Your task to perform on an android device: toggle location history Image 0: 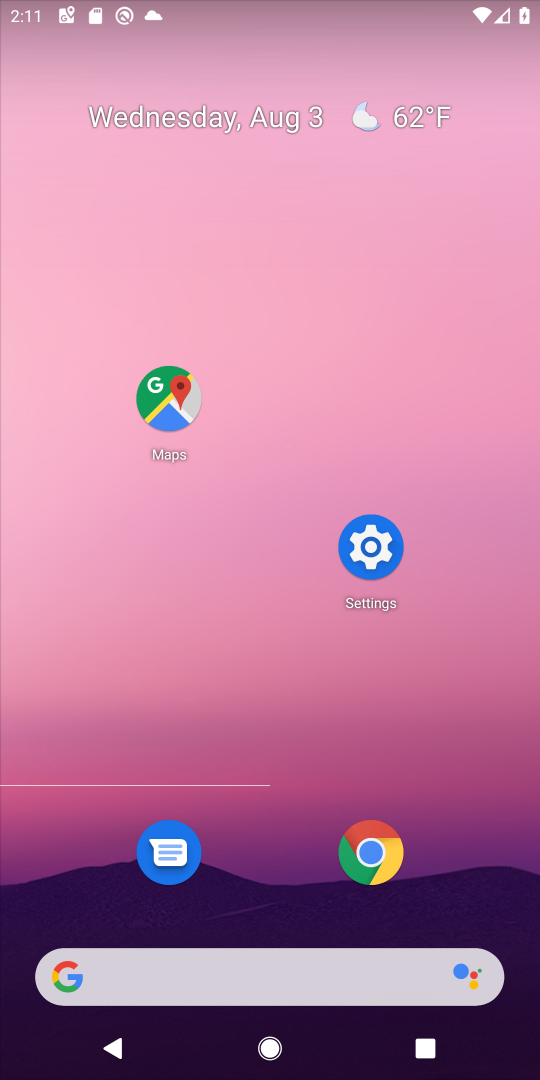
Step 0: press home button
Your task to perform on an android device: toggle location history Image 1: 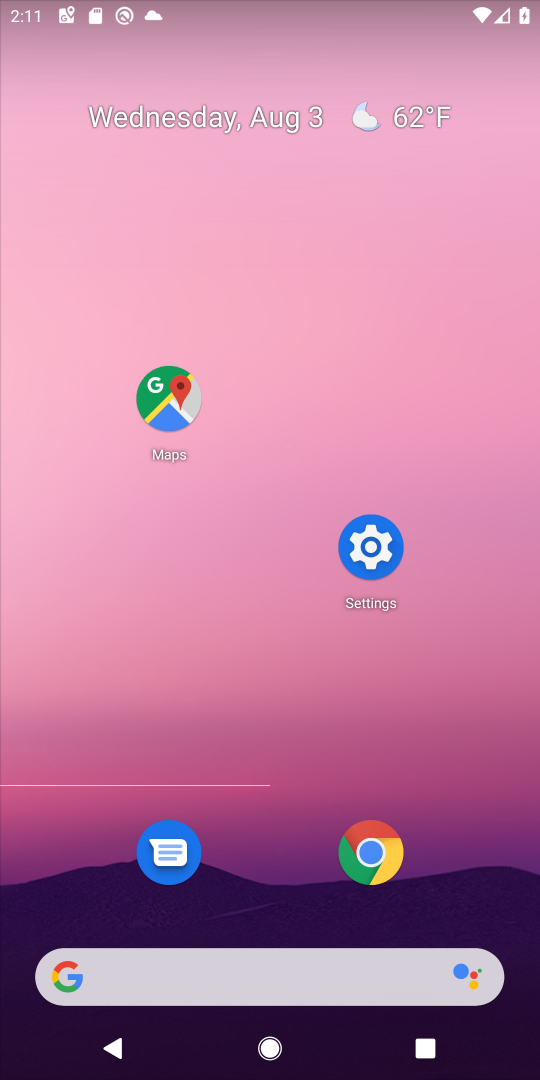
Step 1: click (162, 413)
Your task to perform on an android device: toggle location history Image 2: 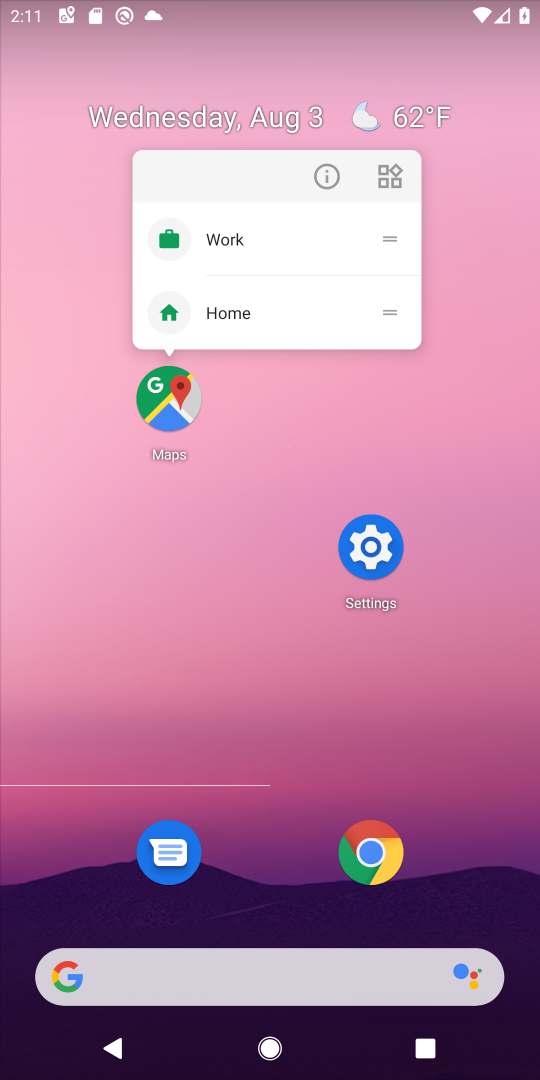
Step 2: click (168, 408)
Your task to perform on an android device: toggle location history Image 3: 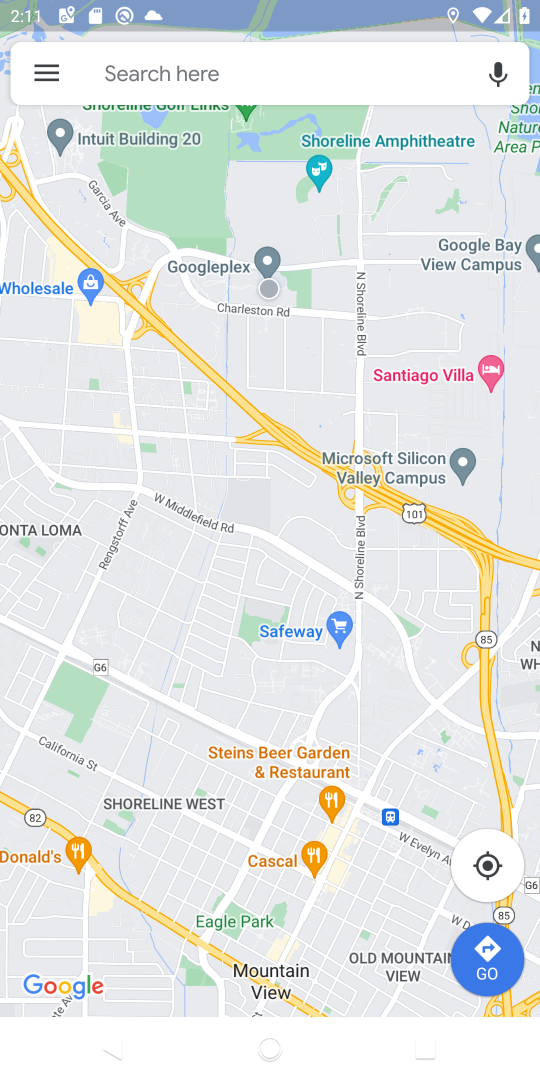
Step 3: click (38, 70)
Your task to perform on an android device: toggle location history Image 4: 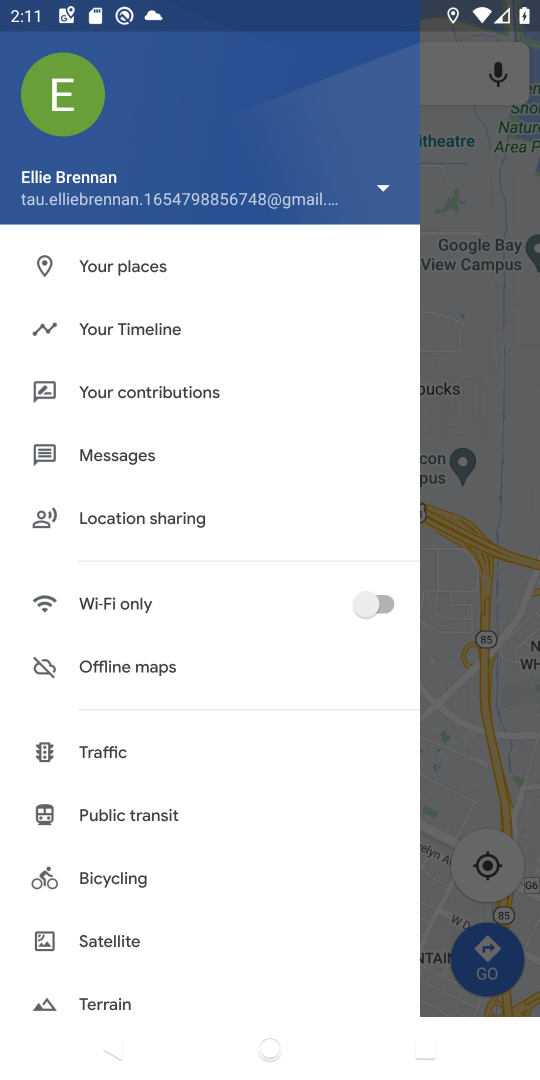
Step 4: click (147, 325)
Your task to perform on an android device: toggle location history Image 5: 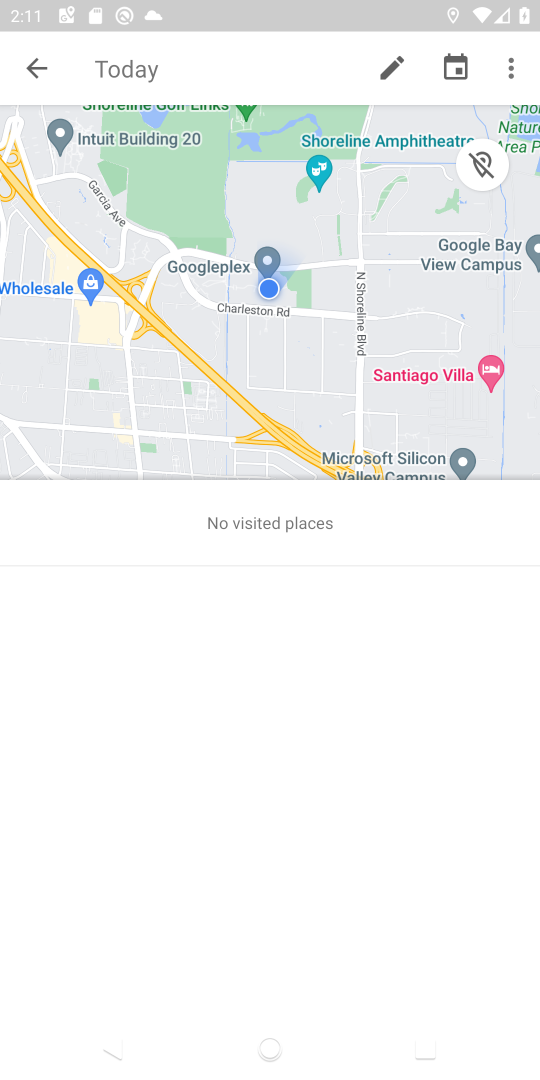
Step 5: click (511, 62)
Your task to perform on an android device: toggle location history Image 6: 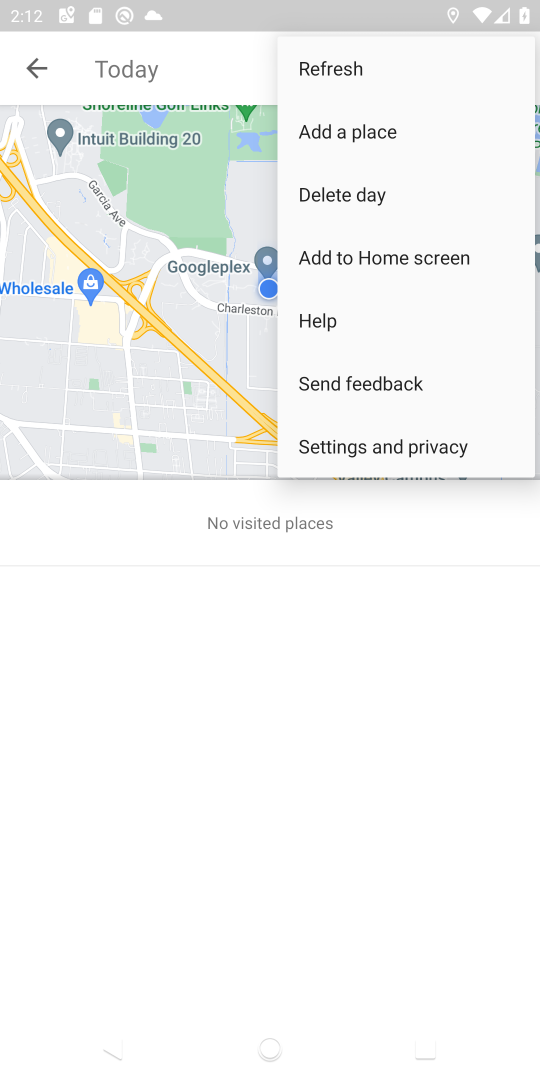
Step 6: click (388, 449)
Your task to perform on an android device: toggle location history Image 7: 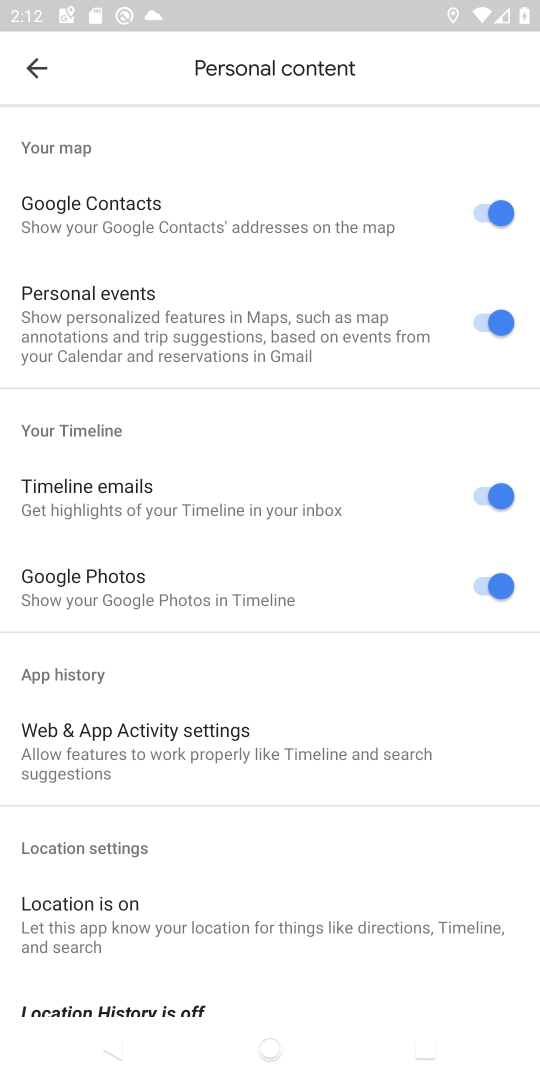
Step 7: drag from (267, 845) to (425, 343)
Your task to perform on an android device: toggle location history Image 8: 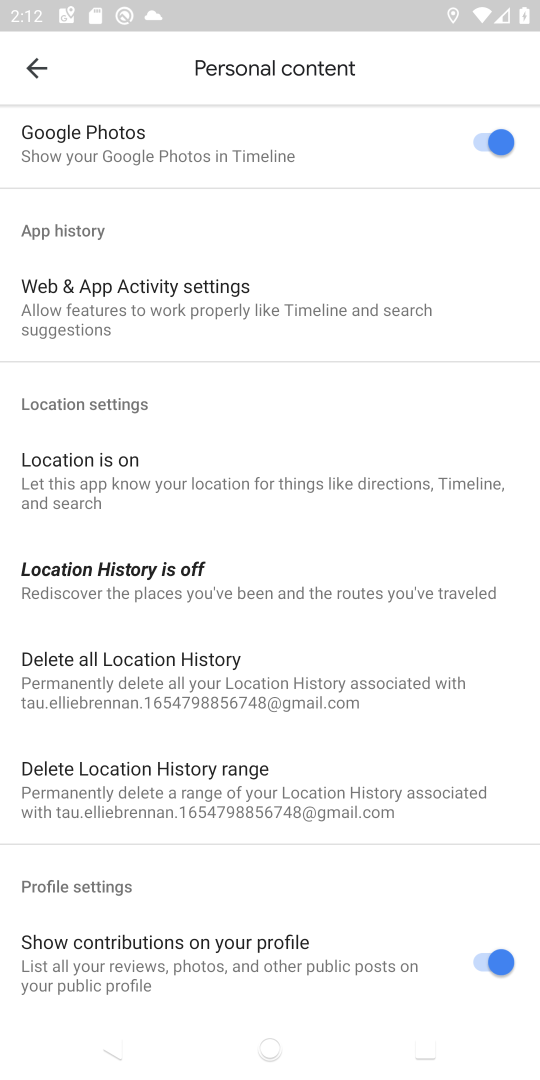
Step 8: click (183, 571)
Your task to perform on an android device: toggle location history Image 9: 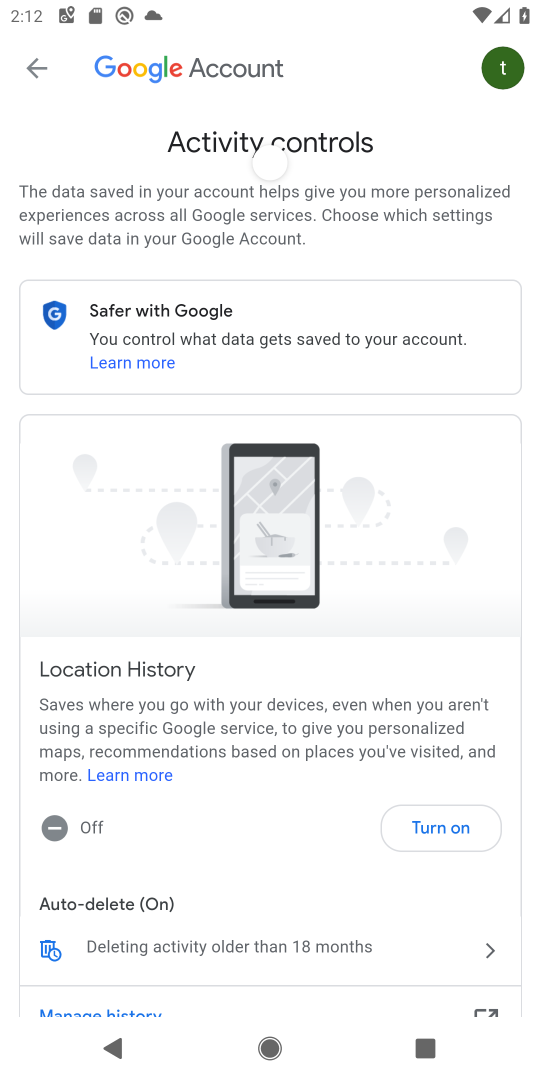
Step 9: click (426, 829)
Your task to perform on an android device: toggle location history Image 10: 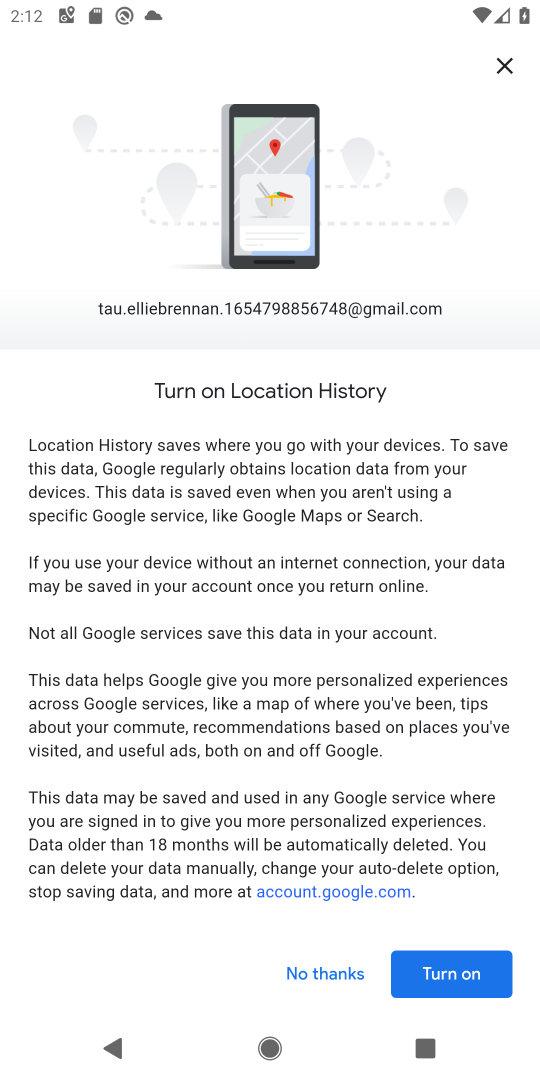
Step 10: drag from (362, 853) to (533, 288)
Your task to perform on an android device: toggle location history Image 11: 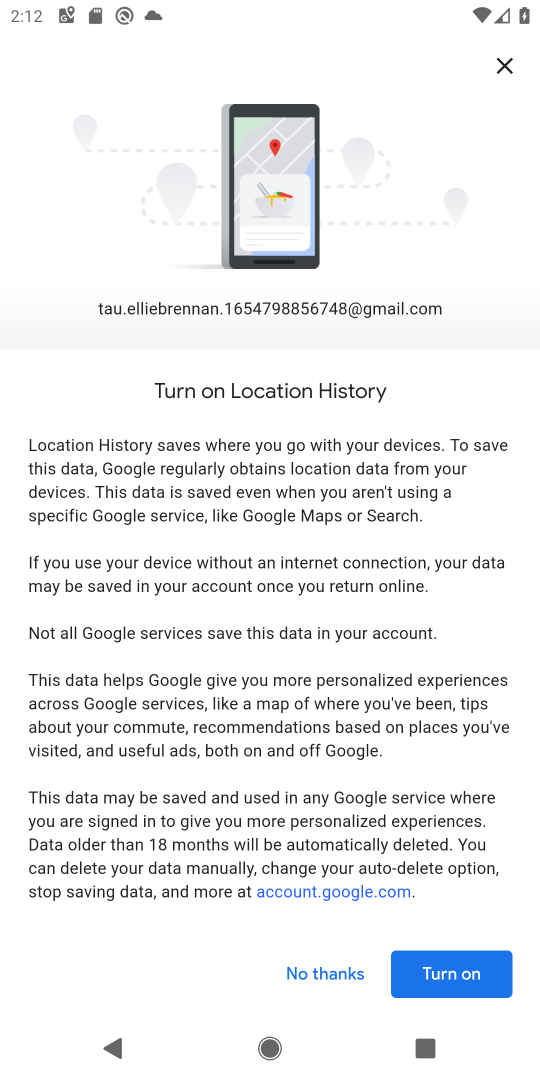
Step 11: click (452, 971)
Your task to perform on an android device: toggle location history Image 12: 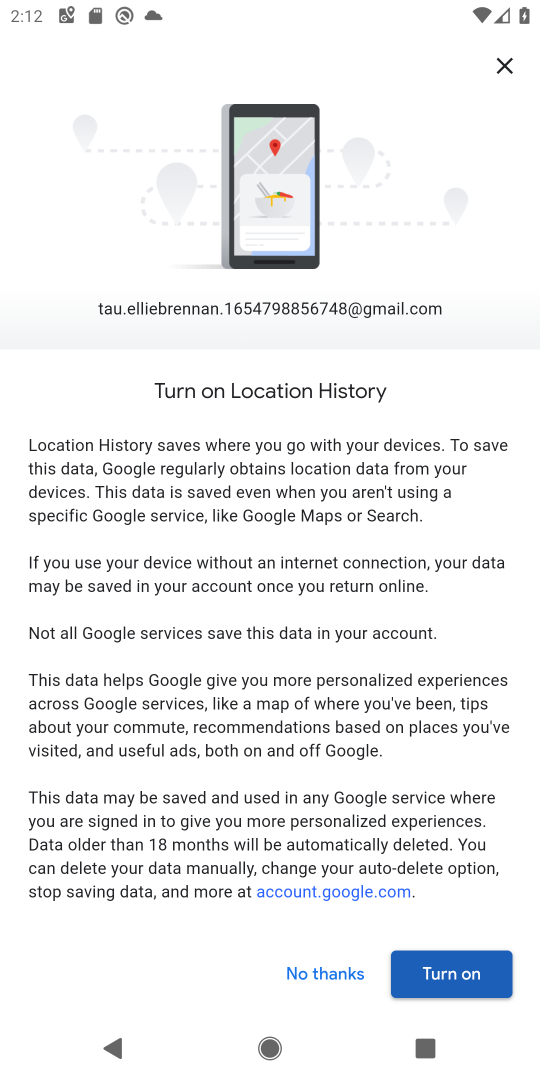
Step 12: click (443, 977)
Your task to perform on an android device: toggle location history Image 13: 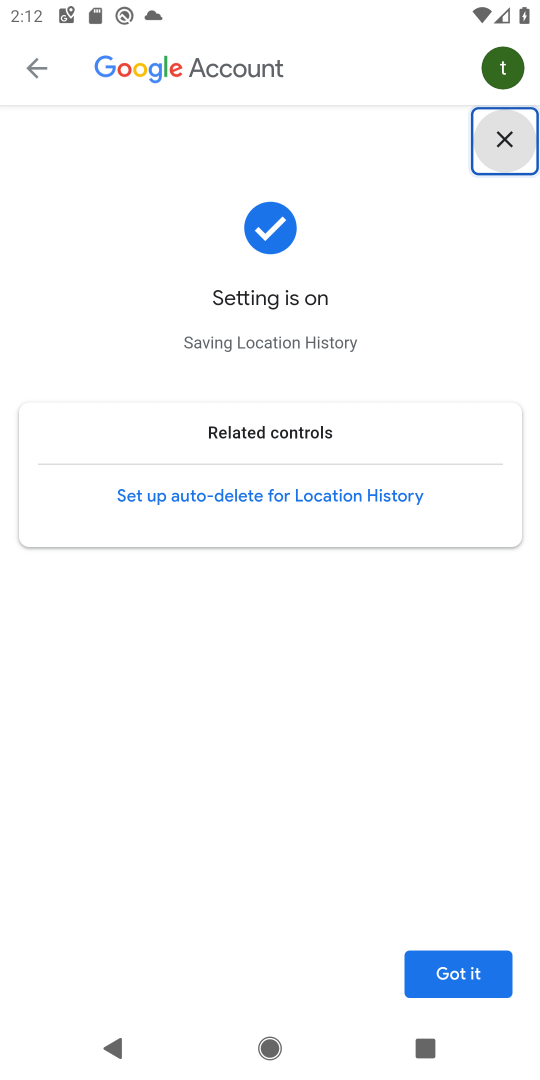
Step 13: click (450, 980)
Your task to perform on an android device: toggle location history Image 14: 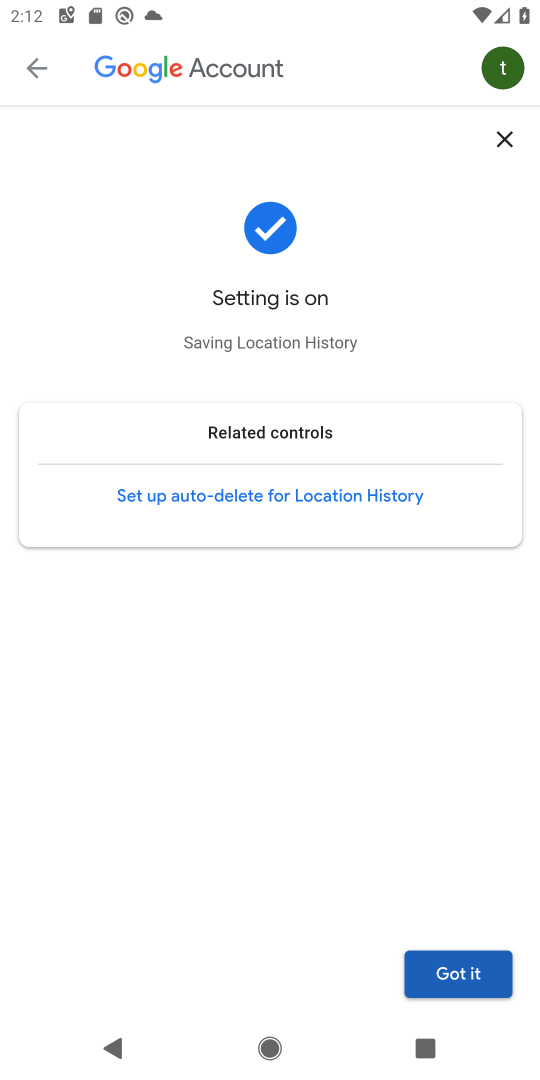
Step 14: click (454, 969)
Your task to perform on an android device: toggle location history Image 15: 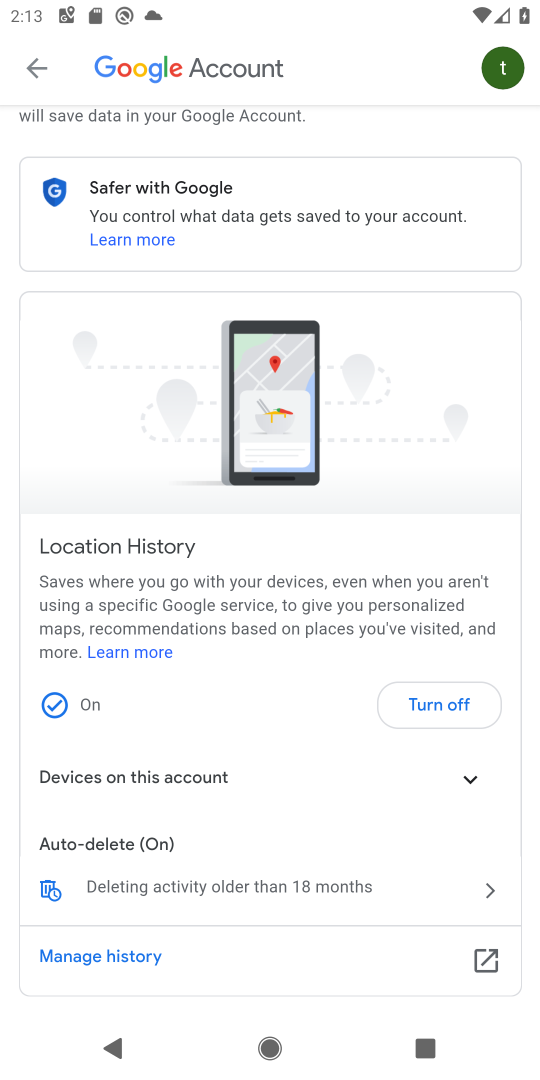
Step 15: task complete